Your task to perform on an android device: choose inbox layout in the gmail app Image 0: 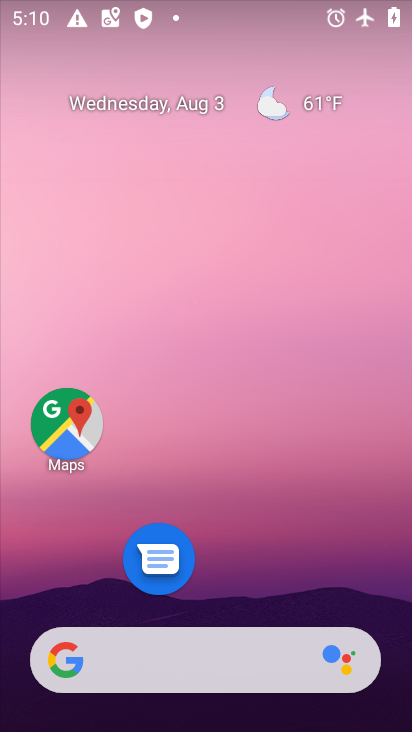
Step 0: drag from (177, 95) to (193, 150)
Your task to perform on an android device: choose inbox layout in the gmail app Image 1: 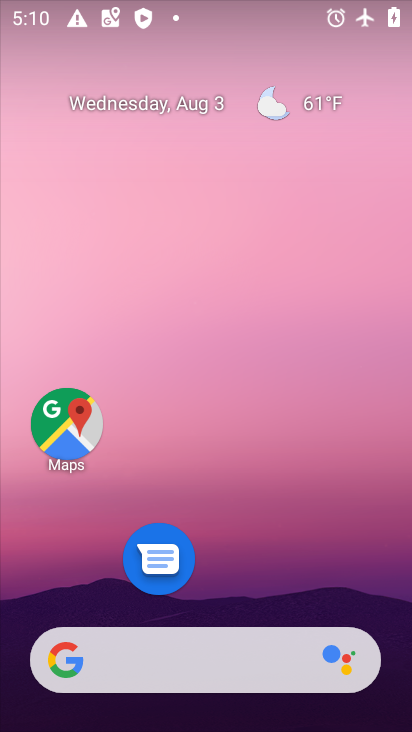
Step 1: drag from (190, 626) to (201, 219)
Your task to perform on an android device: choose inbox layout in the gmail app Image 2: 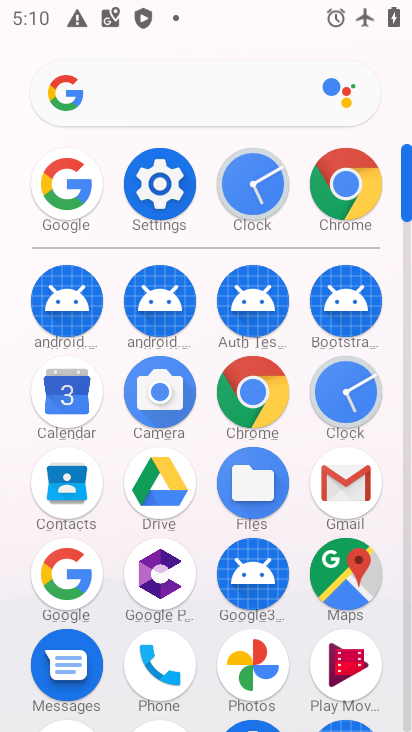
Step 2: click (353, 484)
Your task to perform on an android device: choose inbox layout in the gmail app Image 3: 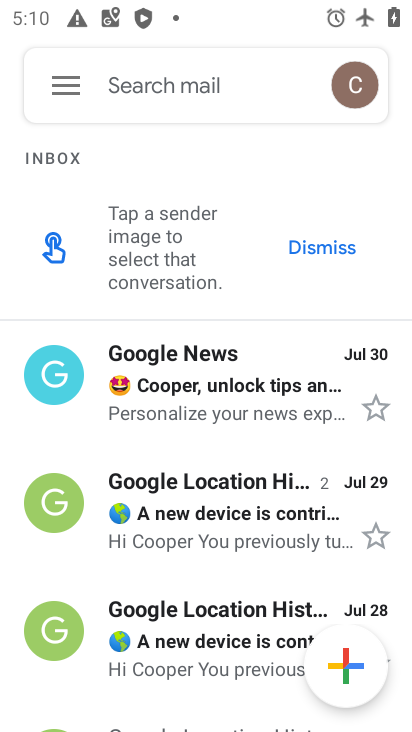
Step 3: click (69, 87)
Your task to perform on an android device: choose inbox layout in the gmail app Image 4: 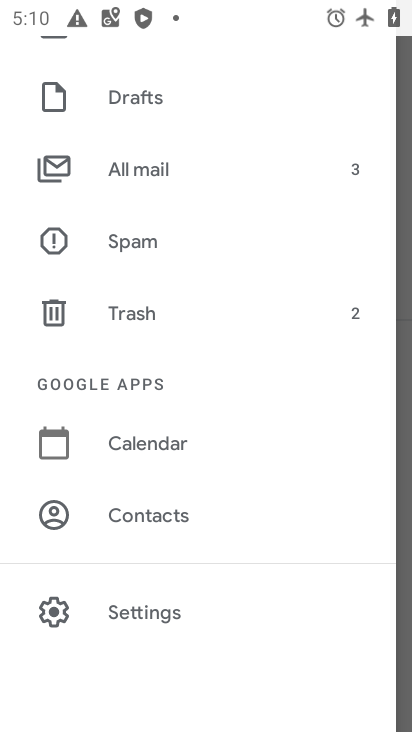
Step 4: click (120, 605)
Your task to perform on an android device: choose inbox layout in the gmail app Image 5: 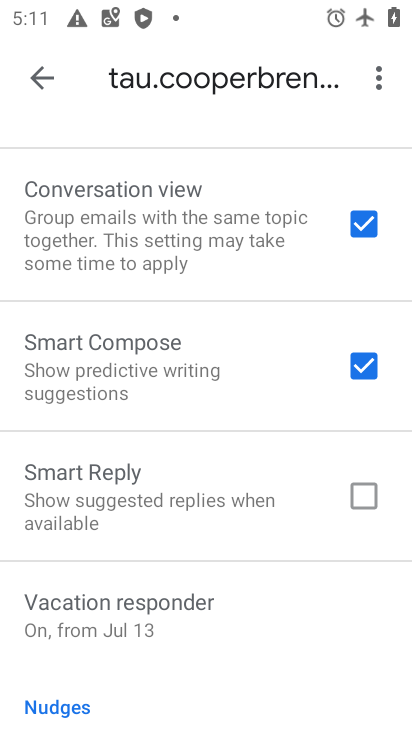
Step 5: drag from (220, 153) to (231, 577)
Your task to perform on an android device: choose inbox layout in the gmail app Image 6: 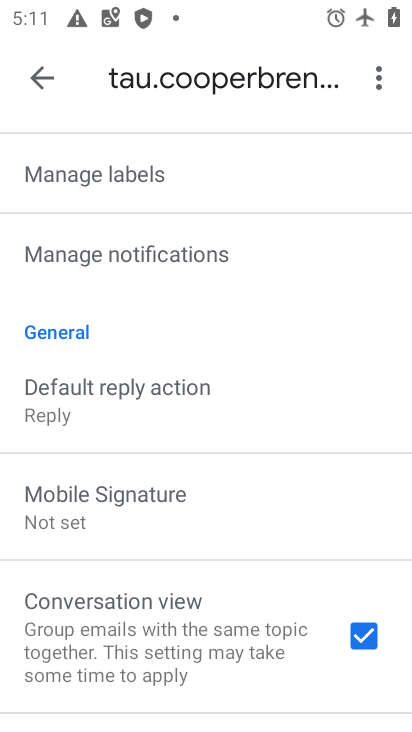
Step 6: drag from (101, 181) to (109, 563)
Your task to perform on an android device: choose inbox layout in the gmail app Image 7: 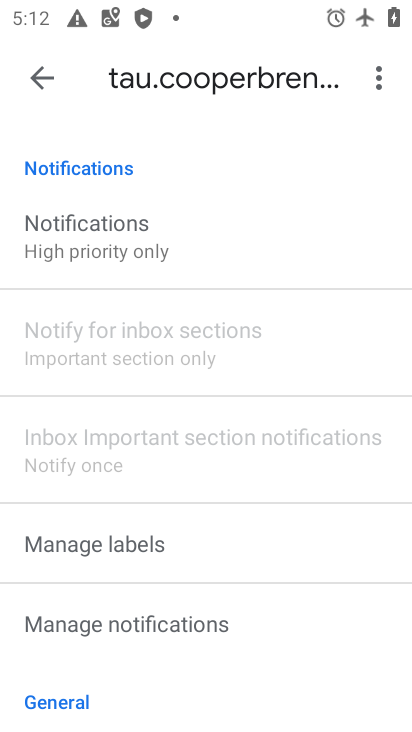
Step 7: drag from (95, 687) to (152, 292)
Your task to perform on an android device: choose inbox layout in the gmail app Image 8: 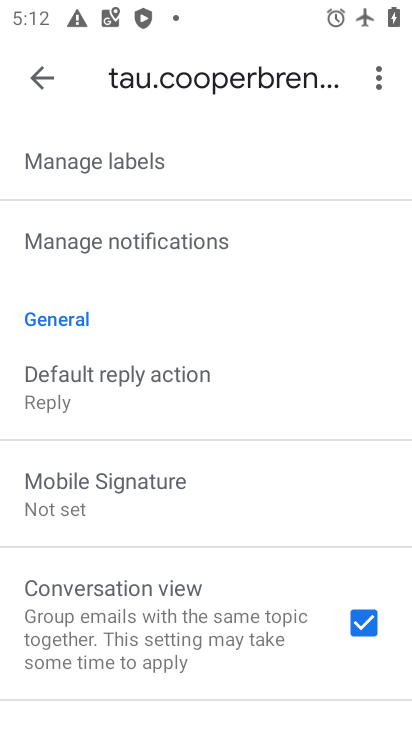
Step 8: drag from (163, 220) to (171, 548)
Your task to perform on an android device: choose inbox layout in the gmail app Image 9: 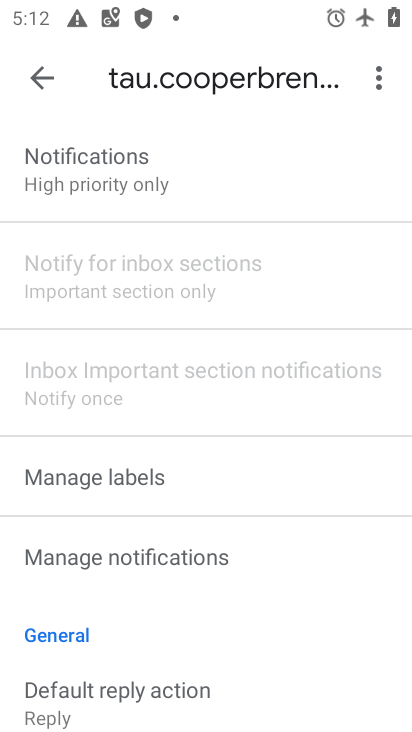
Step 9: drag from (101, 144) to (101, 480)
Your task to perform on an android device: choose inbox layout in the gmail app Image 10: 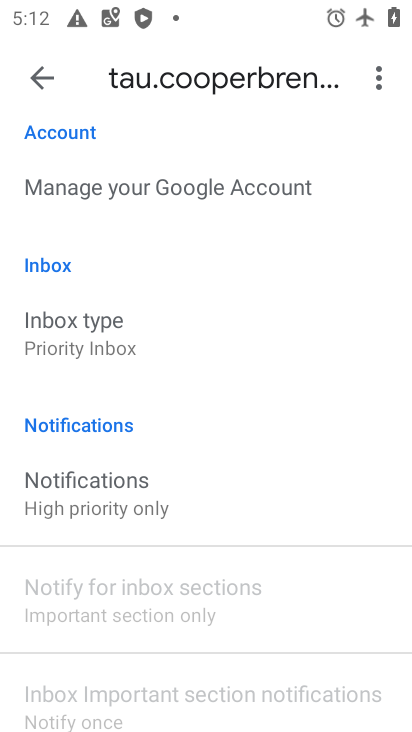
Step 10: click (86, 330)
Your task to perform on an android device: choose inbox layout in the gmail app Image 11: 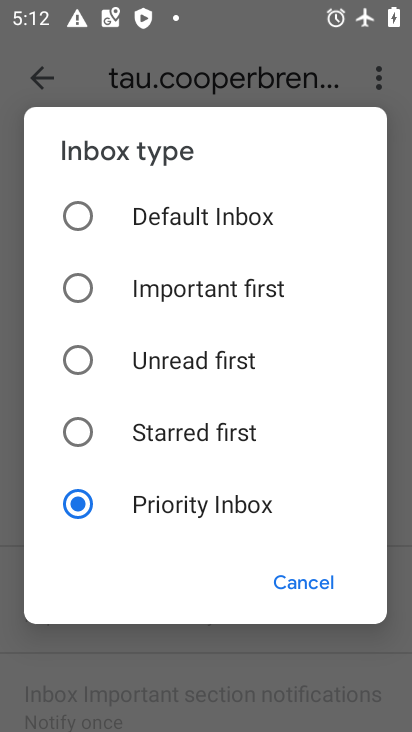
Step 11: click (73, 275)
Your task to perform on an android device: choose inbox layout in the gmail app Image 12: 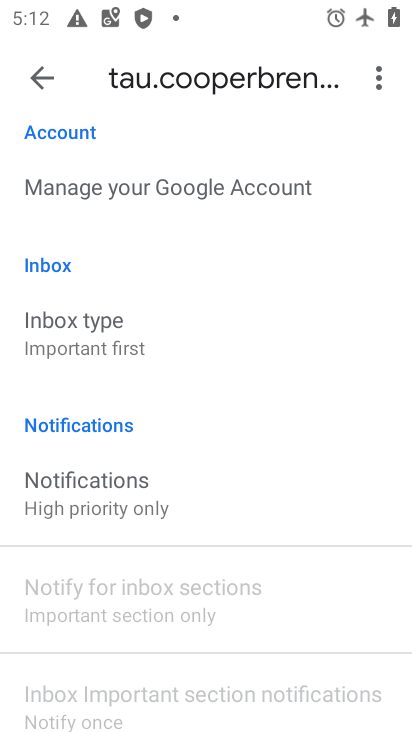
Step 12: task complete